Your task to perform on an android device: Search for the best rated lawnmower on Lowes.com Image 0: 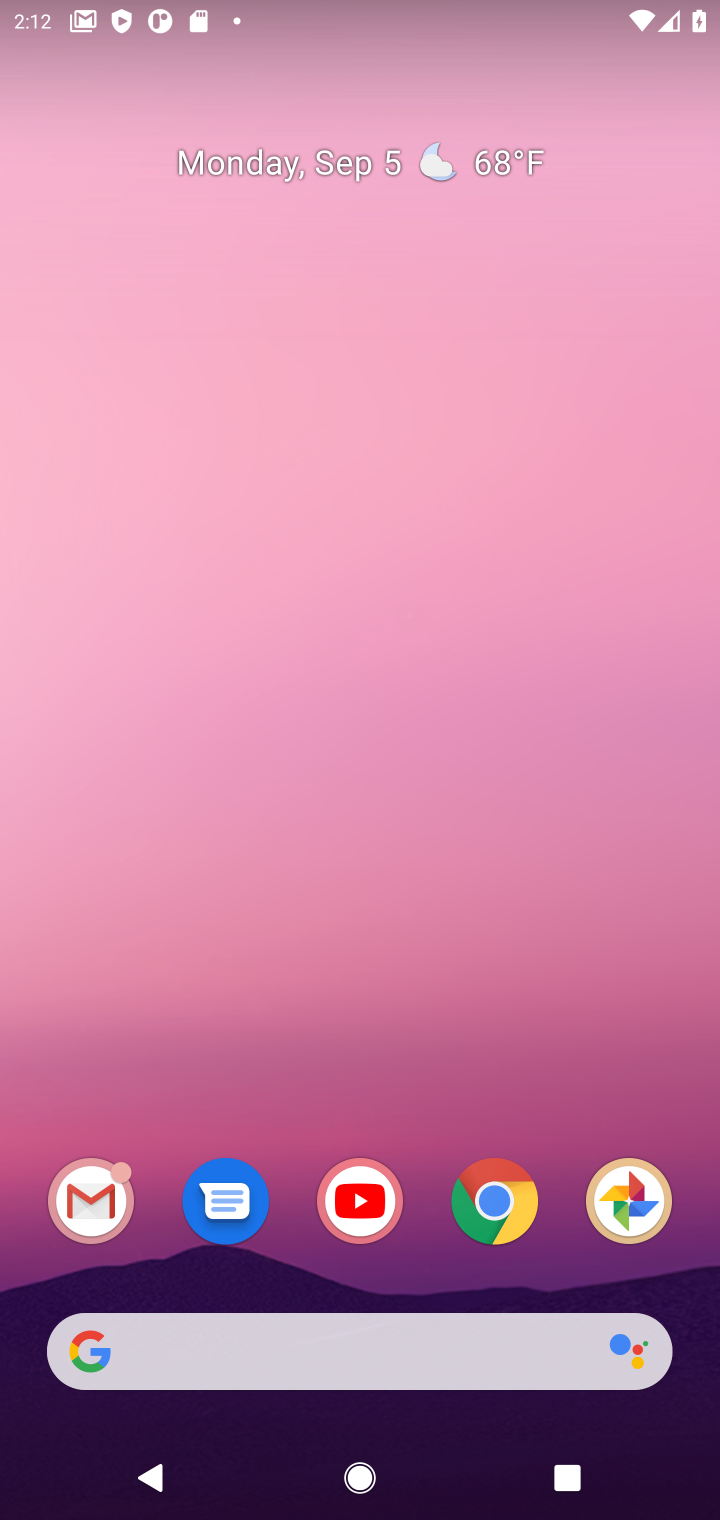
Step 0: click (506, 1194)
Your task to perform on an android device: Search for the best rated lawnmower on Lowes.com Image 1: 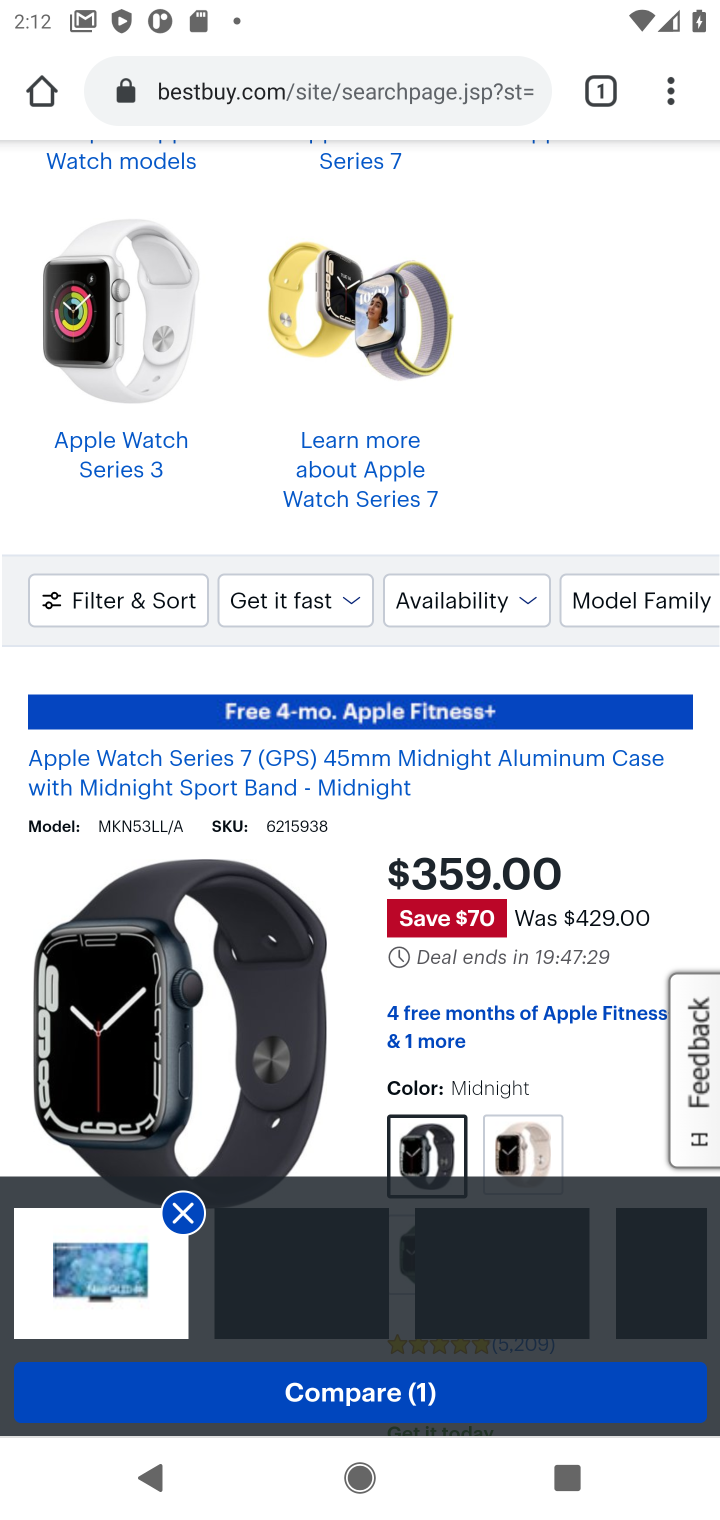
Step 1: click (368, 94)
Your task to perform on an android device: Search for the best rated lawnmower on Lowes.com Image 2: 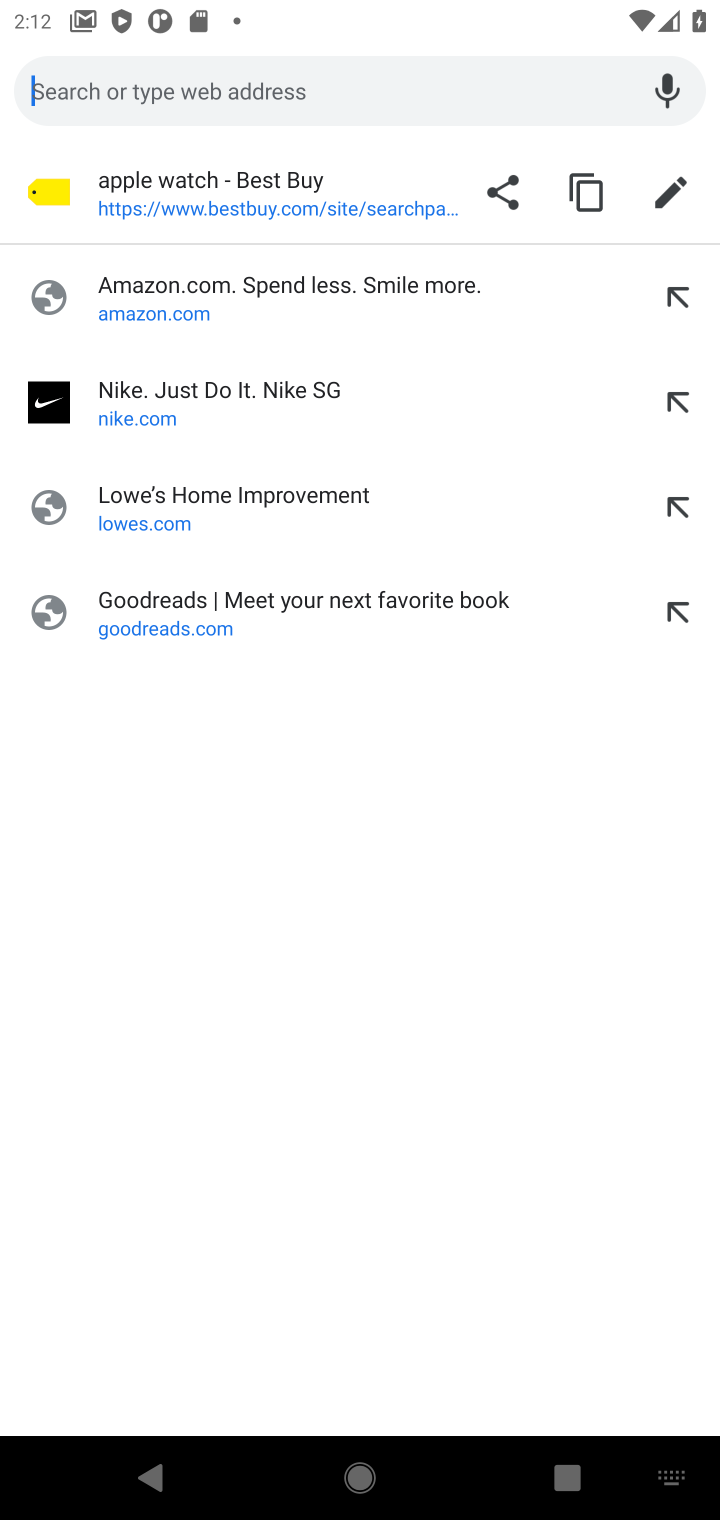
Step 2: type "Lowes.com"
Your task to perform on an android device: Search for the best rated lawnmower on Lowes.com Image 3: 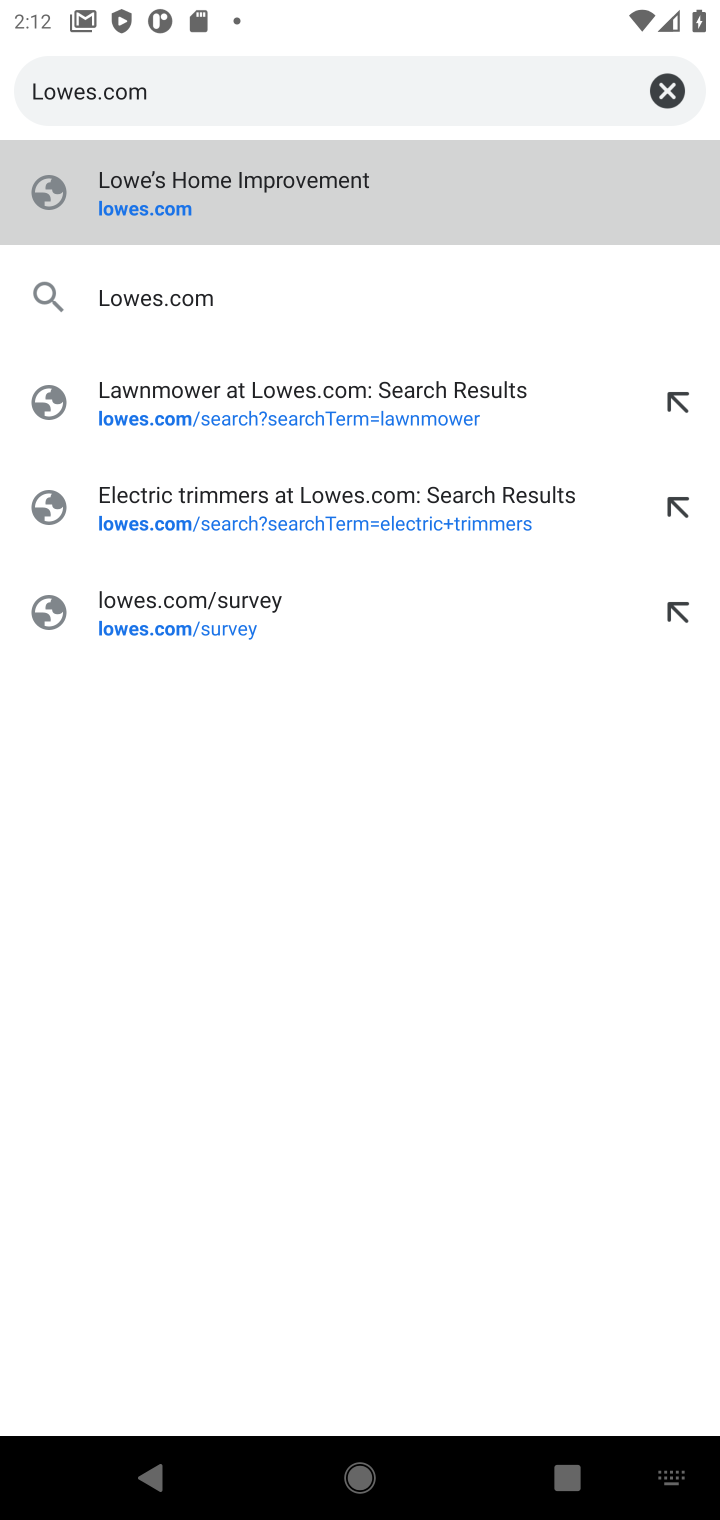
Step 3: press enter
Your task to perform on an android device: Search for the best rated lawnmower on Lowes.com Image 4: 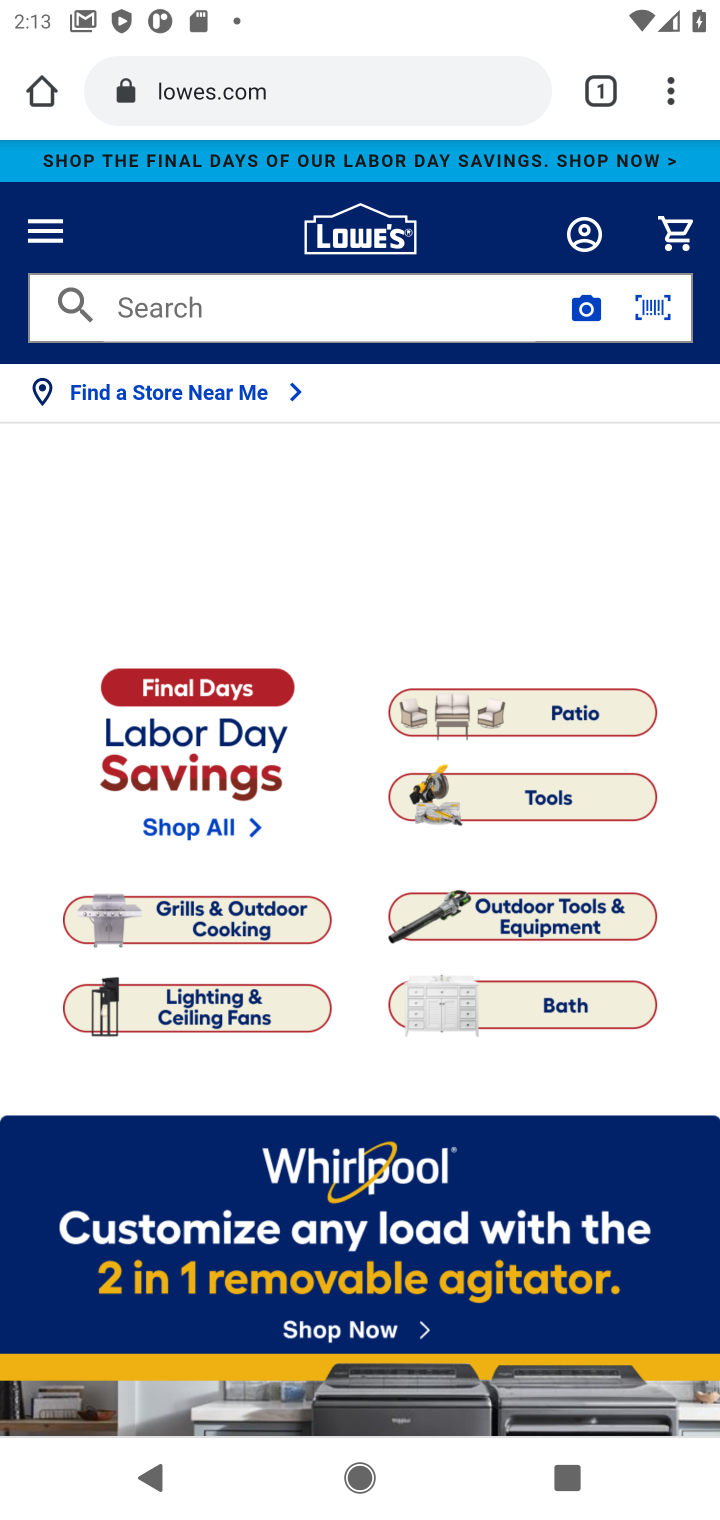
Step 4: click (289, 303)
Your task to perform on an android device: Search for the best rated lawnmower on Lowes.com Image 5: 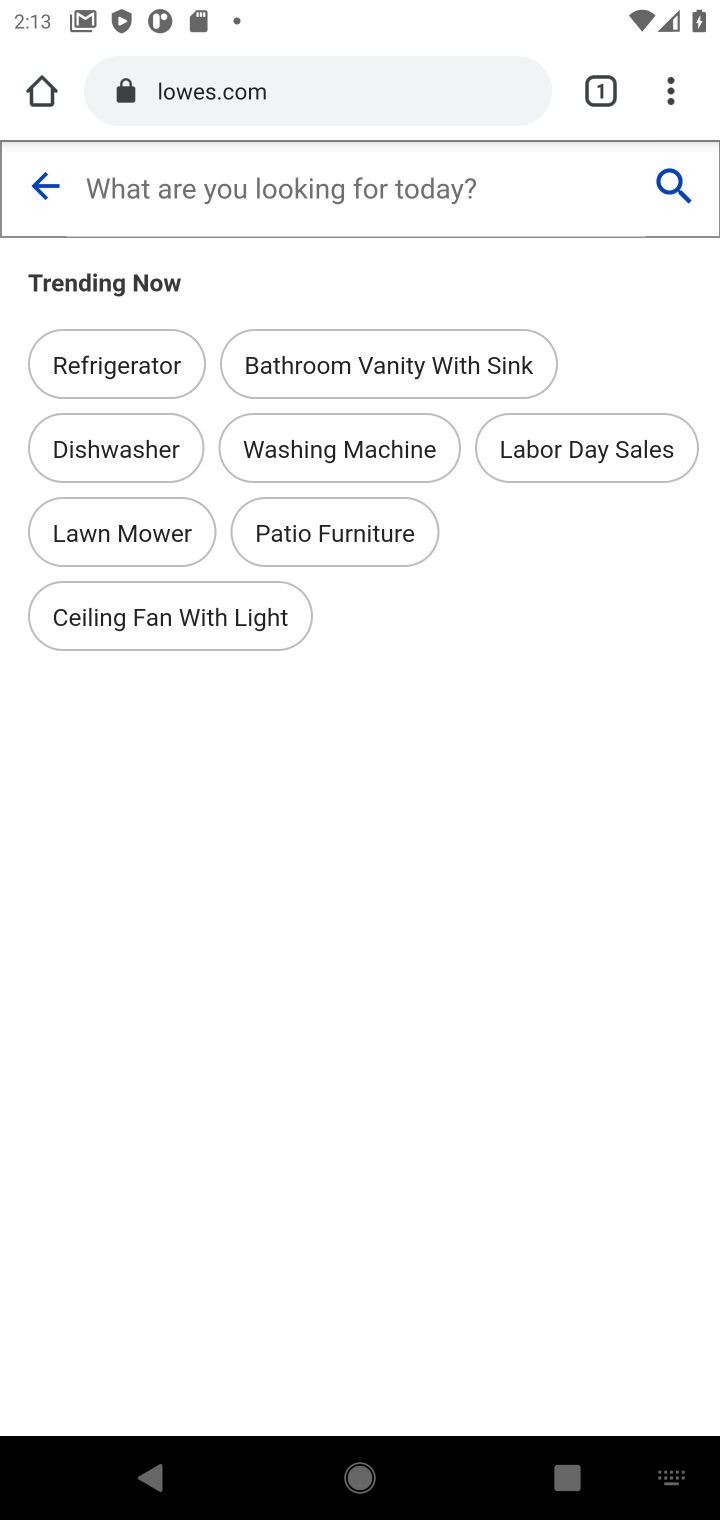
Step 5: press enter
Your task to perform on an android device: Search for the best rated lawnmower on Lowes.com Image 6: 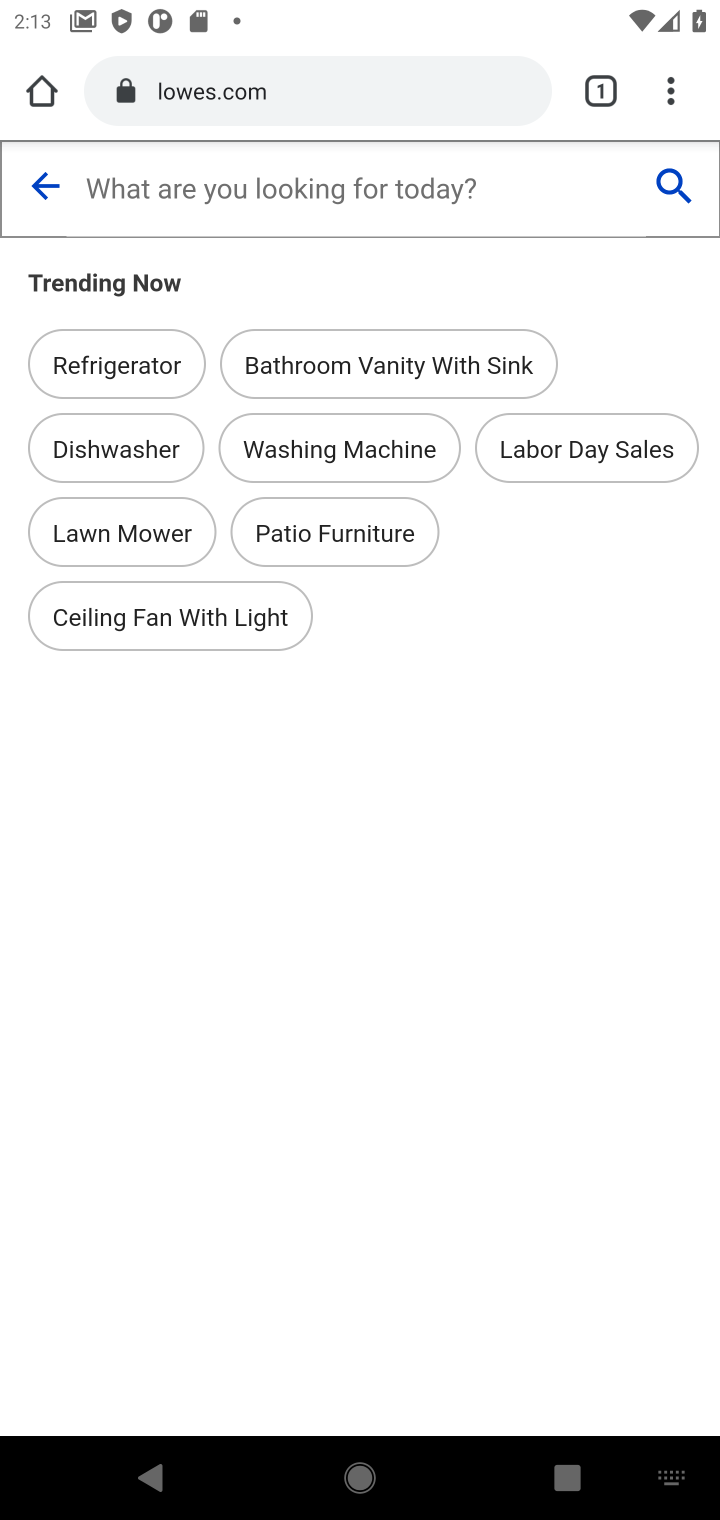
Step 6: type "lawnmower "
Your task to perform on an android device: Search for the best rated lawnmower on Lowes.com Image 7: 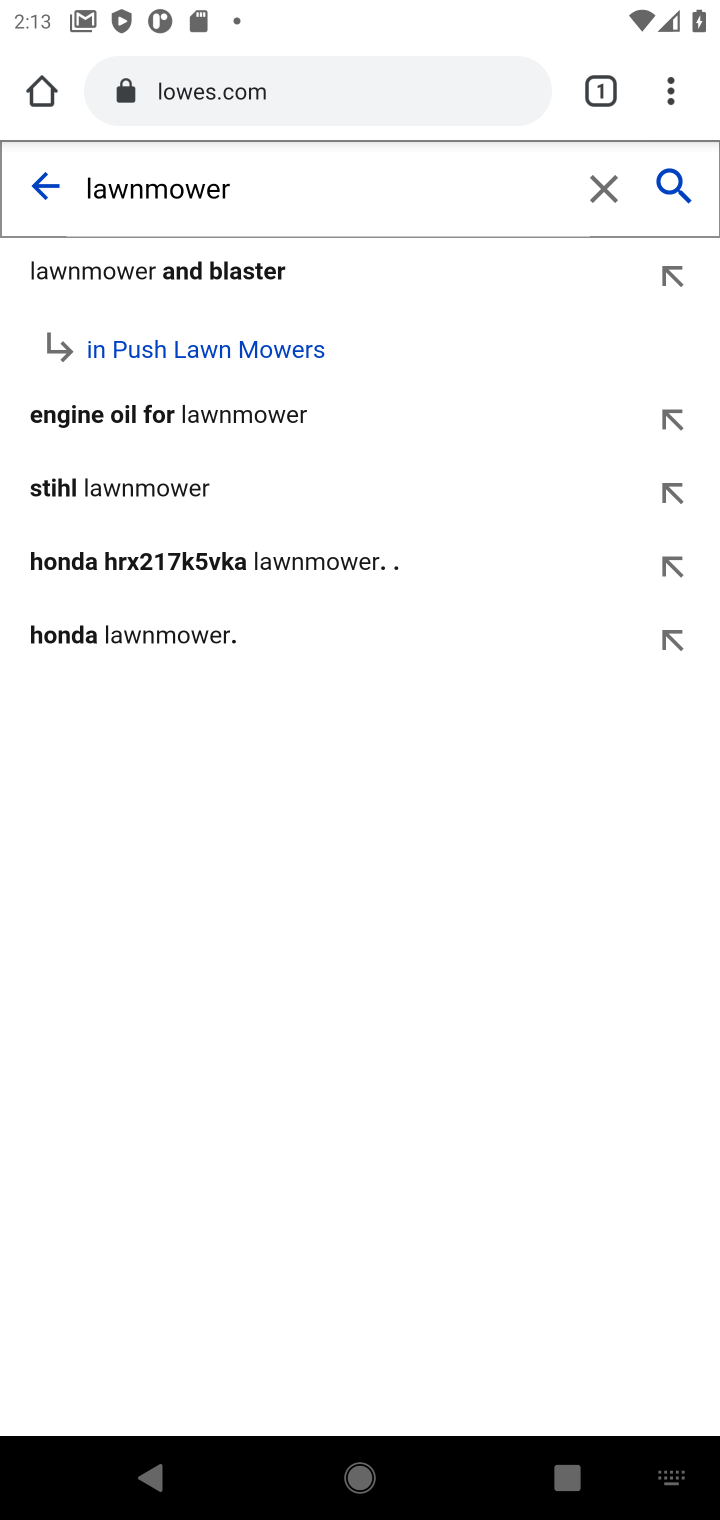
Step 7: click (673, 168)
Your task to perform on an android device: Search for the best rated lawnmower on Lowes.com Image 8: 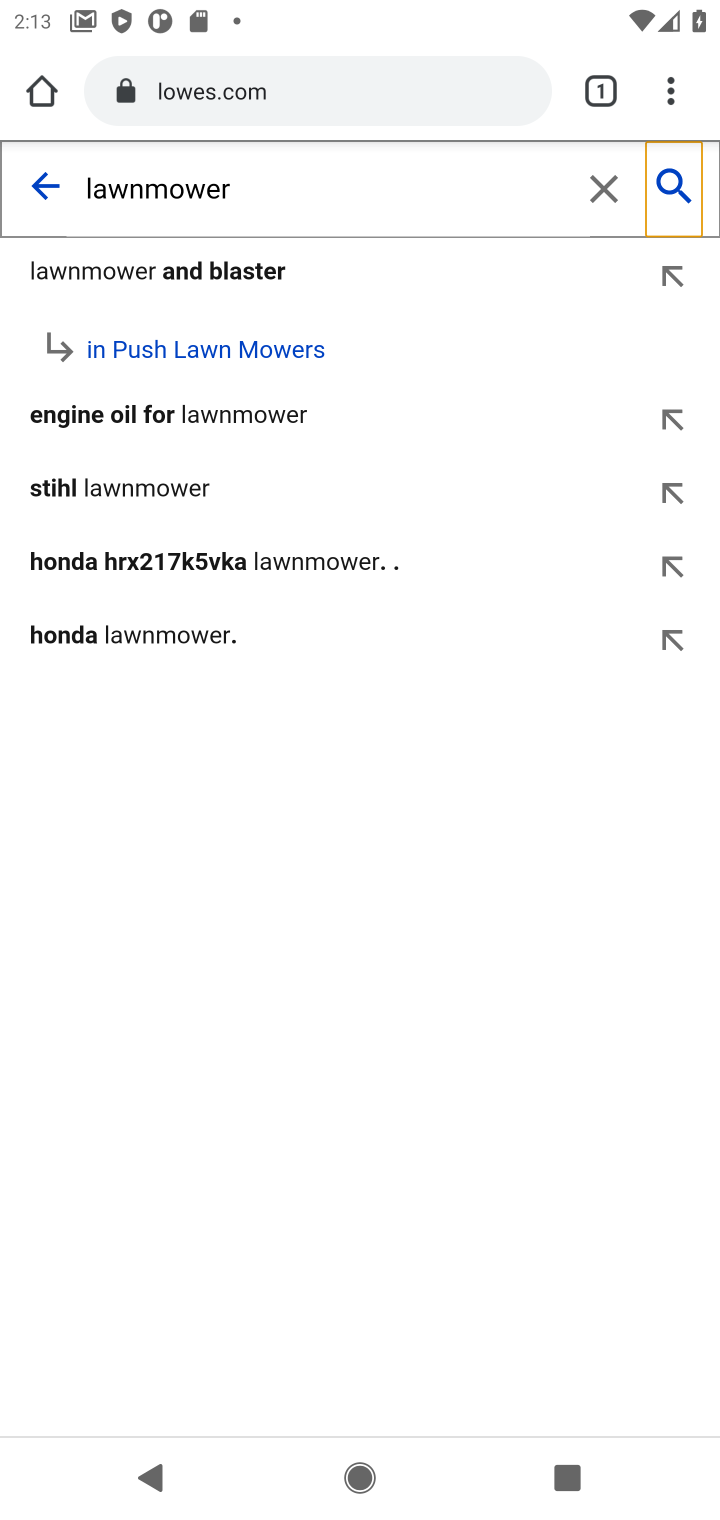
Step 8: click (670, 181)
Your task to perform on an android device: Search for the best rated lawnmower on Lowes.com Image 9: 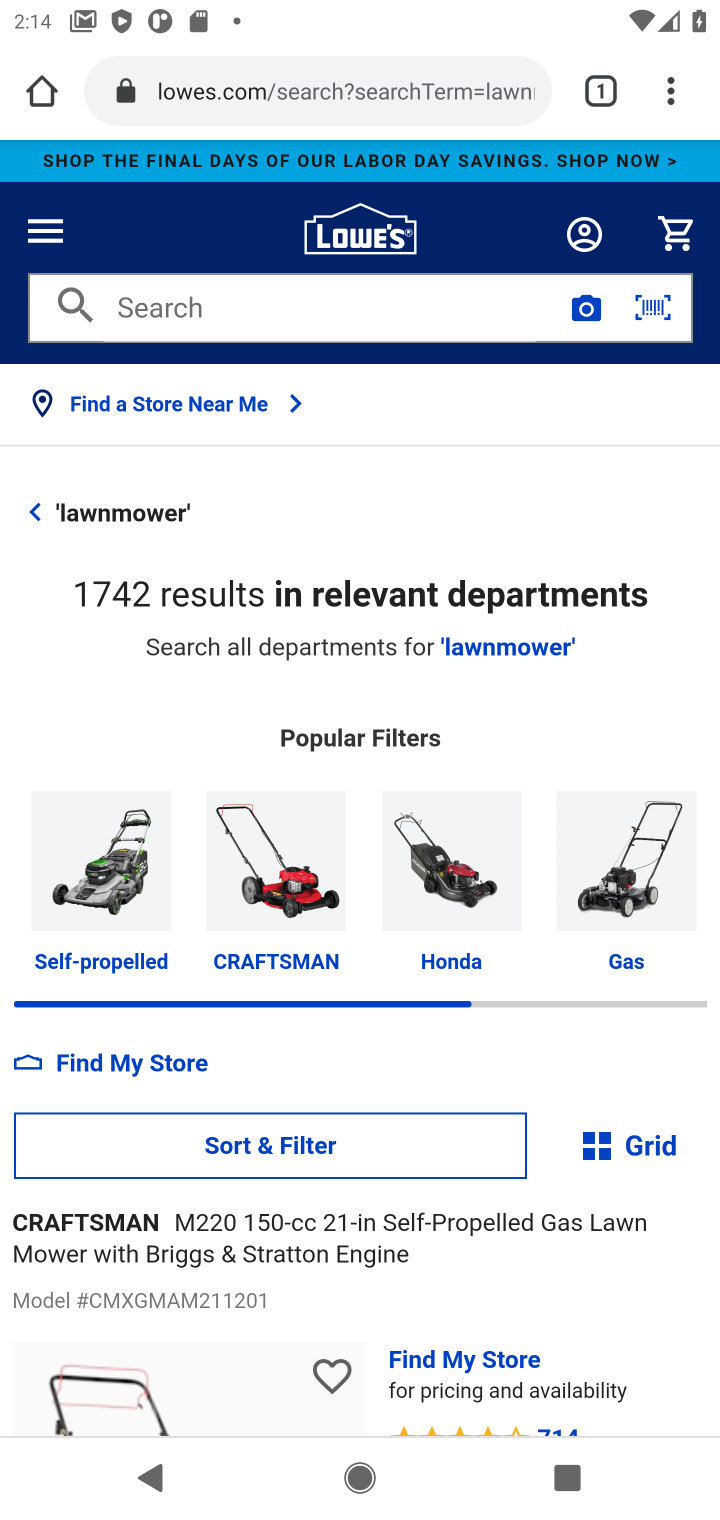
Step 9: task complete